Your task to perform on an android device: Search for vegetarian restaurants on Maps Image 0: 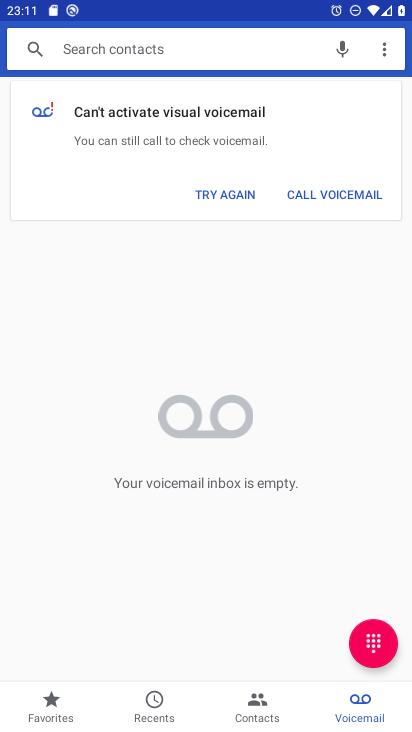
Step 0: press home button
Your task to perform on an android device: Search for vegetarian restaurants on Maps Image 1: 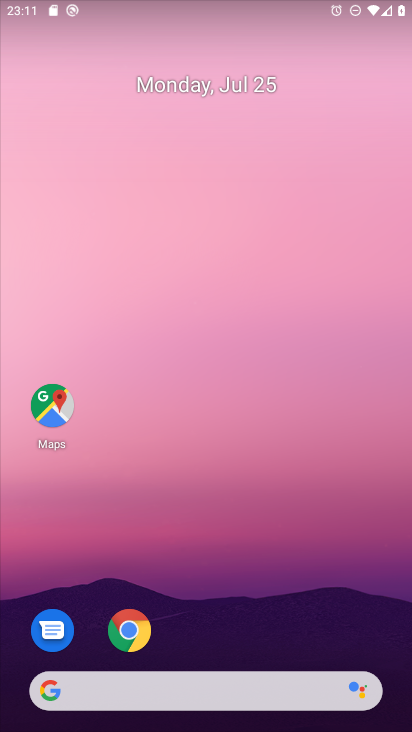
Step 1: drag from (333, 629) to (214, 28)
Your task to perform on an android device: Search for vegetarian restaurants on Maps Image 2: 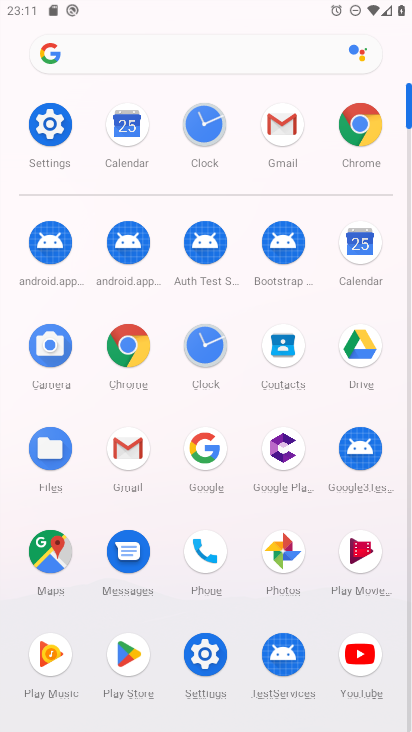
Step 2: click (52, 551)
Your task to perform on an android device: Search for vegetarian restaurants on Maps Image 3: 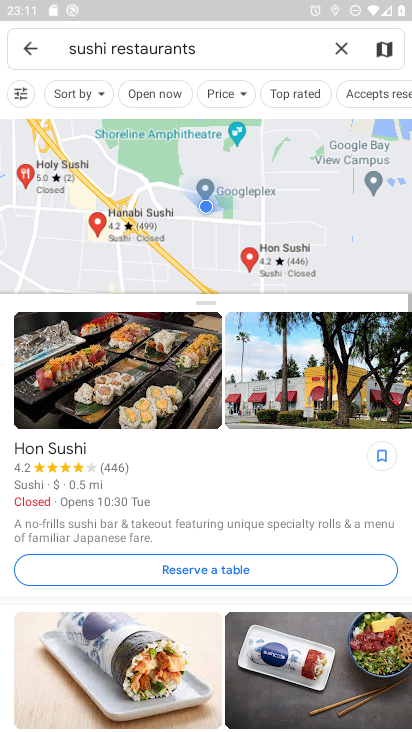
Step 3: click (340, 45)
Your task to perform on an android device: Search for vegetarian restaurants on Maps Image 4: 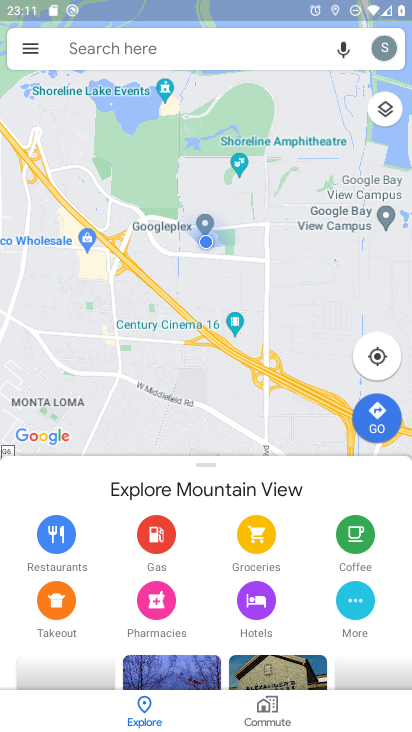
Step 4: click (152, 45)
Your task to perform on an android device: Search for vegetarian restaurants on Maps Image 5: 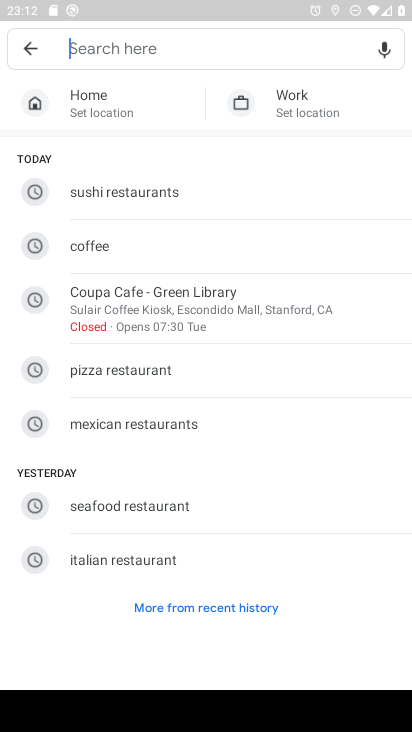
Step 5: type "veegetarian restaurants"
Your task to perform on an android device: Search for vegetarian restaurants on Maps Image 6: 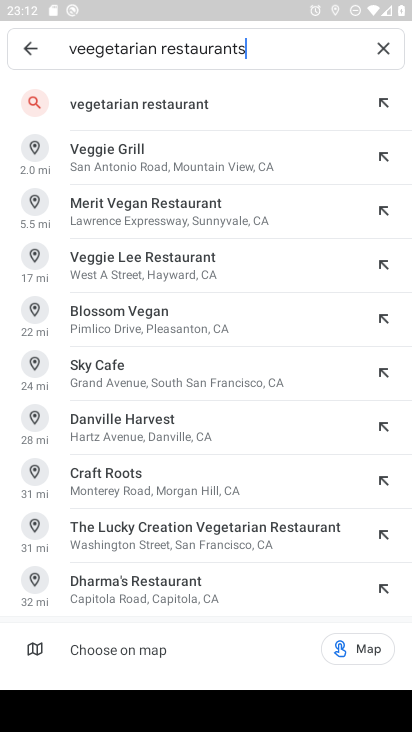
Step 6: press enter
Your task to perform on an android device: Search for vegetarian restaurants on Maps Image 7: 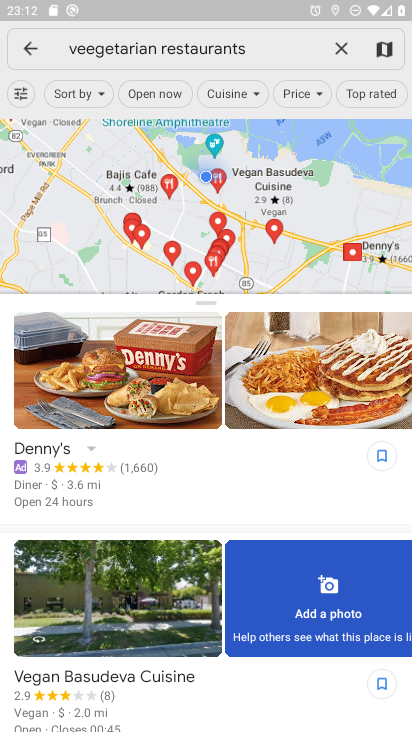
Step 7: task complete